Your task to perform on an android device: change the clock style Image 0: 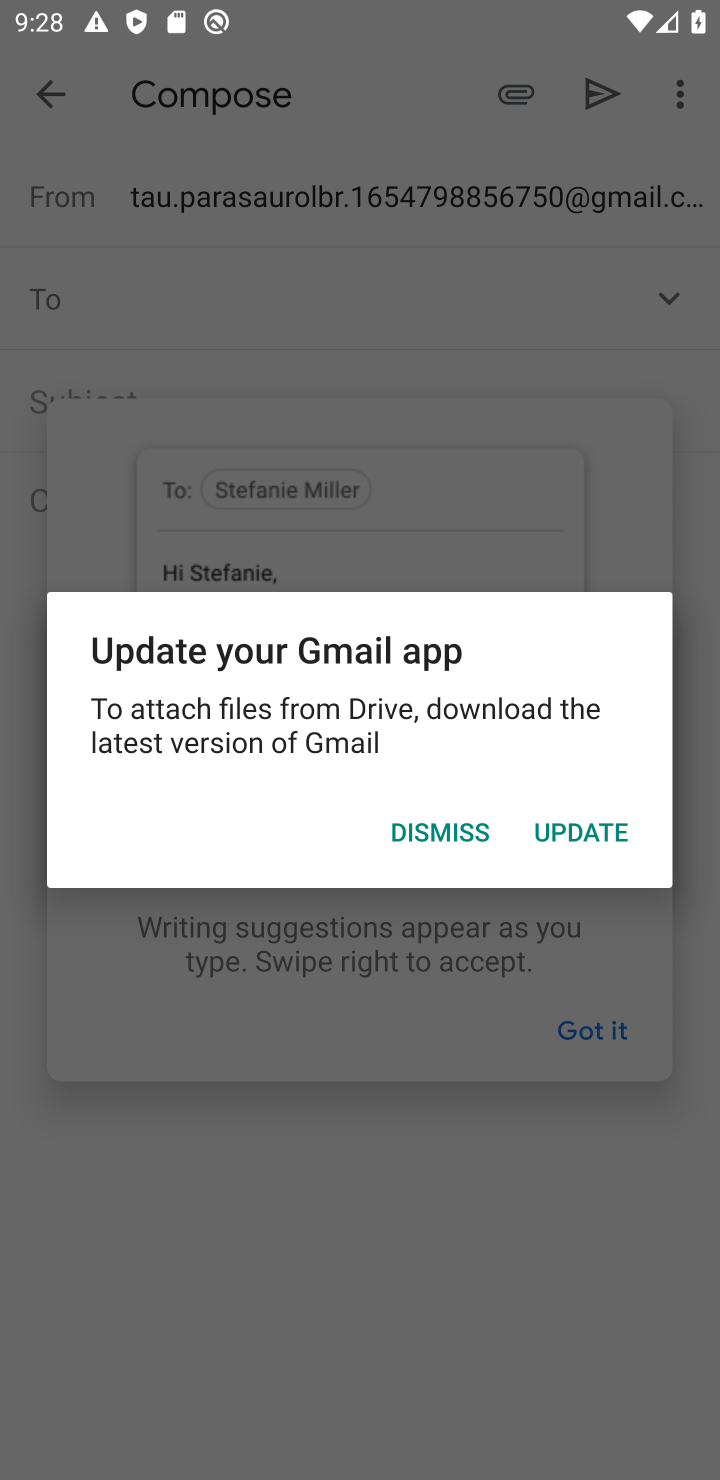
Step 0: press home button
Your task to perform on an android device: change the clock style Image 1: 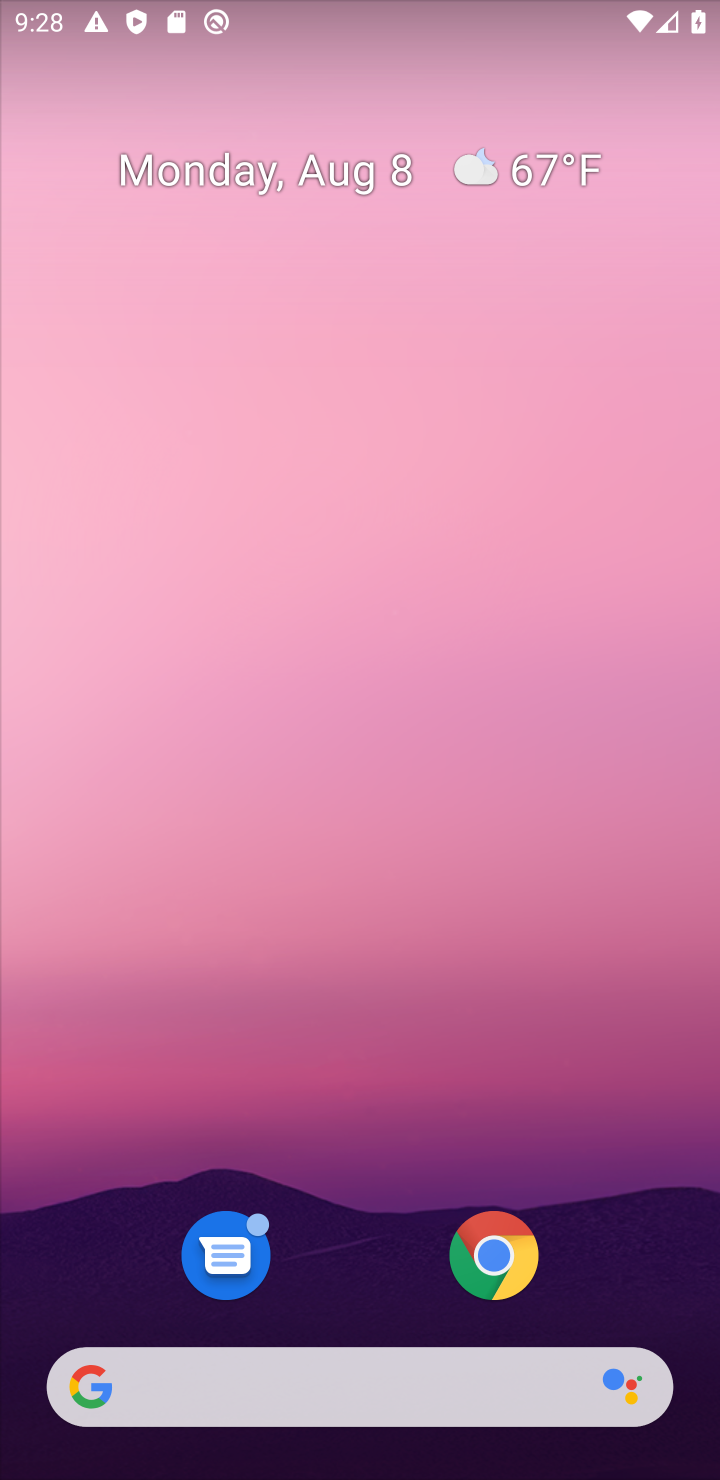
Step 1: drag from (333, 1162) to (359, 139)
Your task to perform on an android device: change the clock style Image 2: 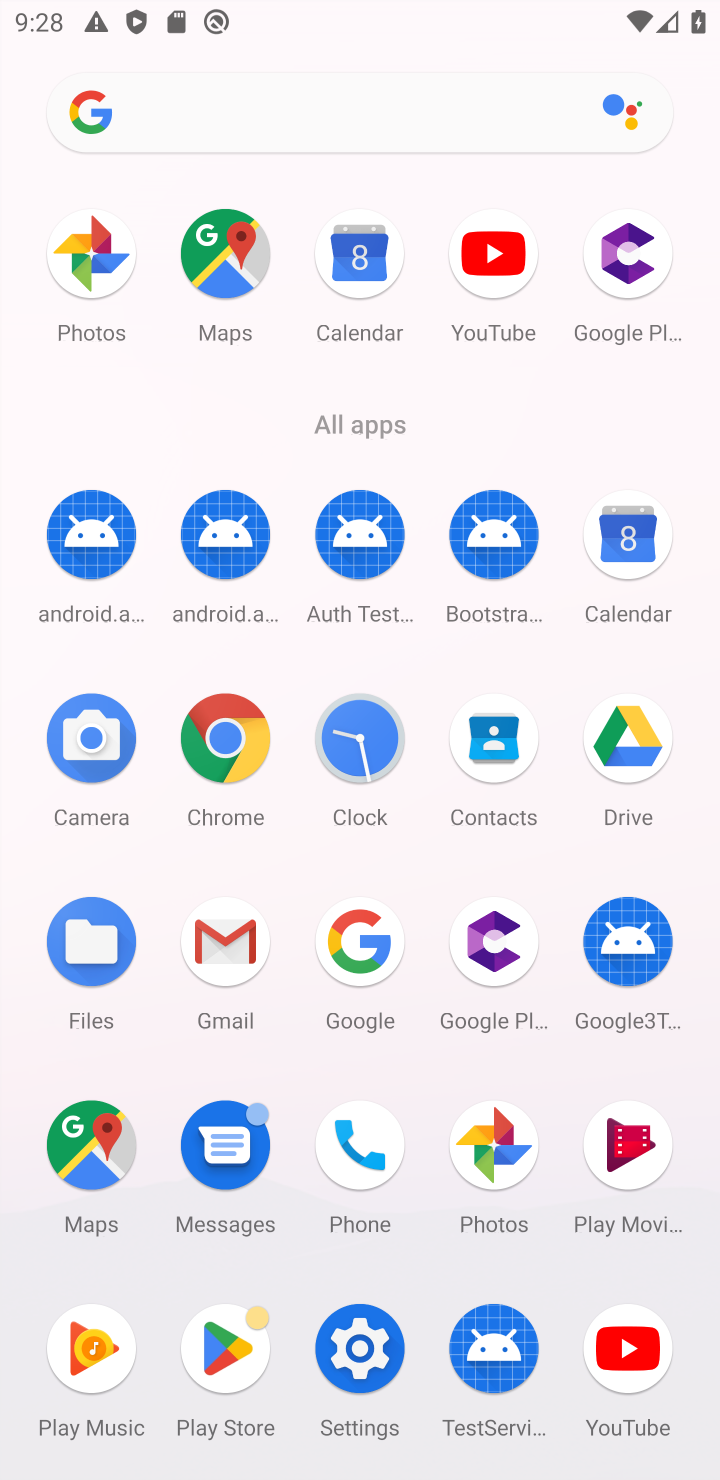
Step 2: click (387, 746)
Your task to perform on an android device: change the clock style Image 3: 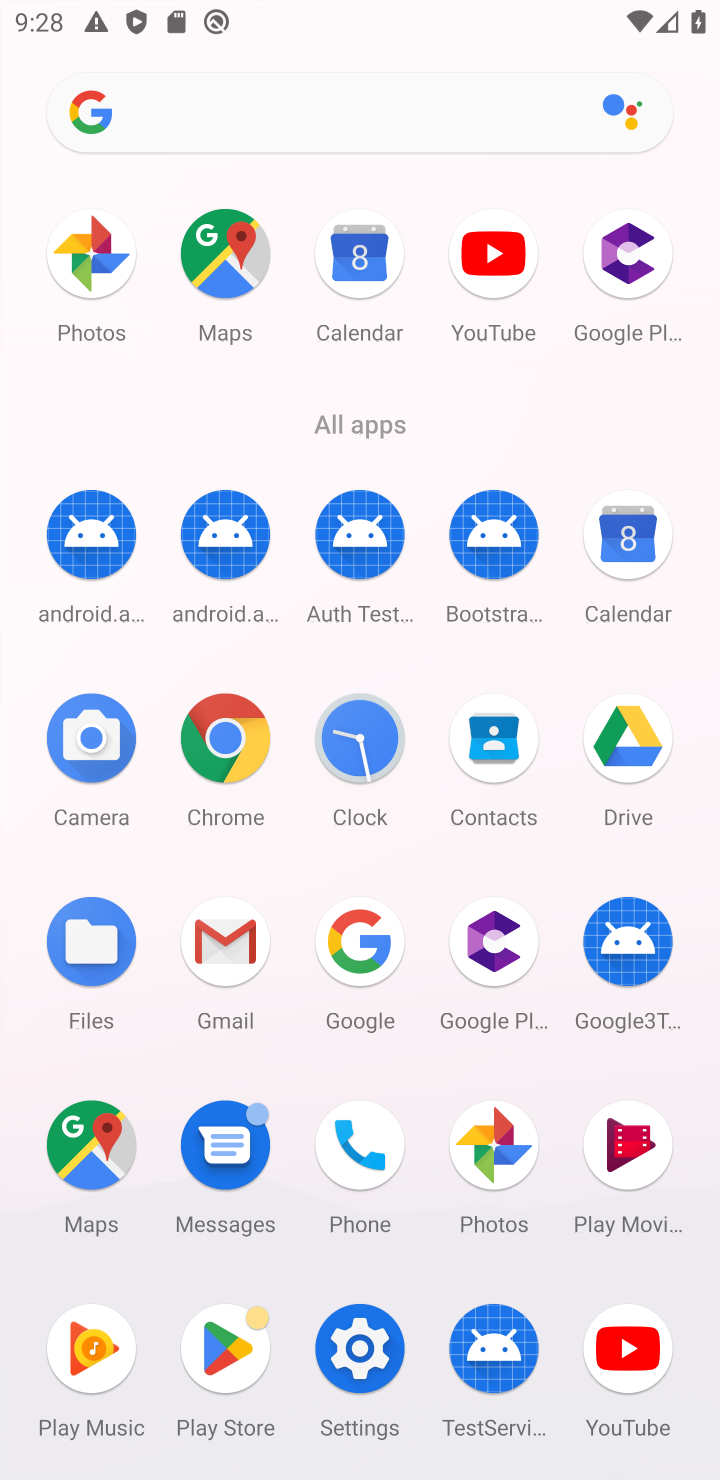
Step 3: click (387, 746)
Your task to perform on an android device: change the clock style Image 4: 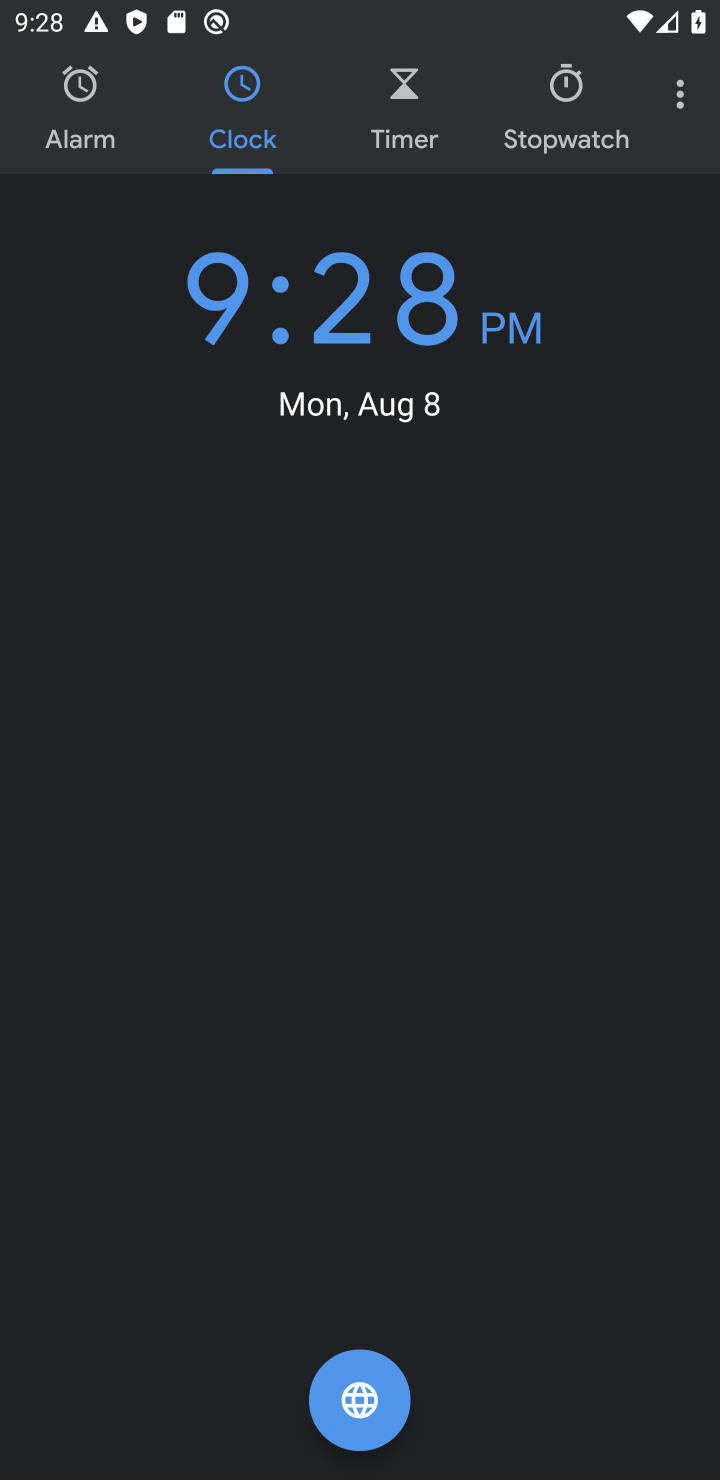
Step 4: click (684, 93)
Your task to perform on an android device: change the clock style Image 5: 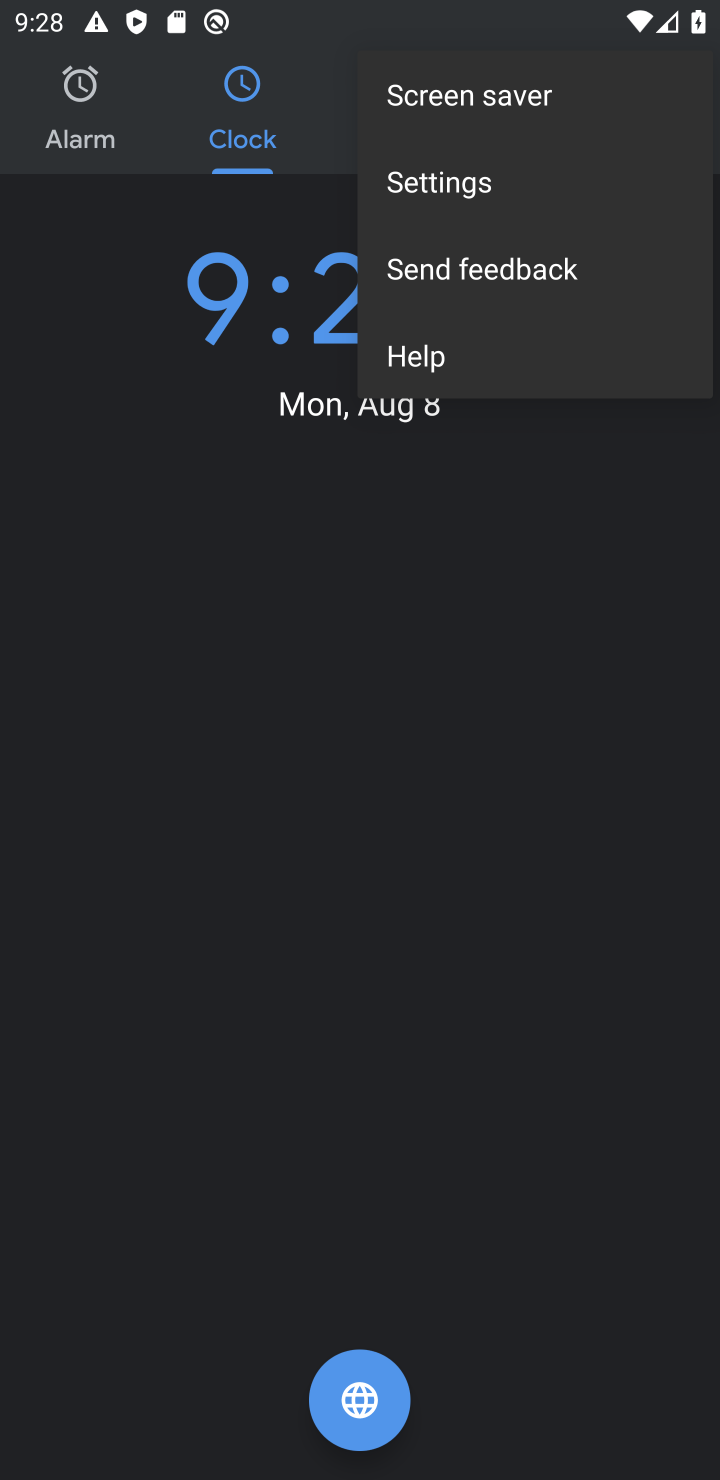
Step 5: click (470, 185)
Your task to perform on an android device: change the clock style Image 6: 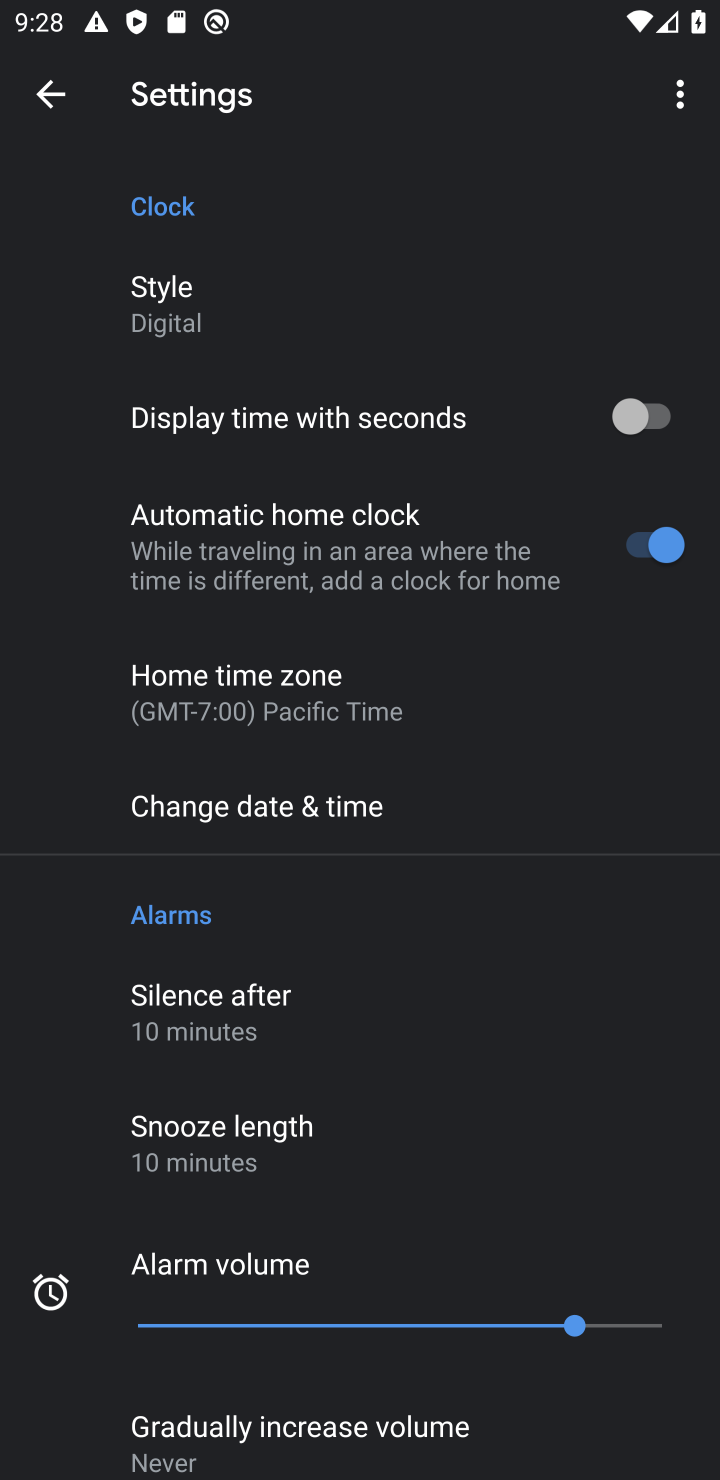
Step 6: click (200, 315)
Your task to perform on an android device: change the clock style Image 7: 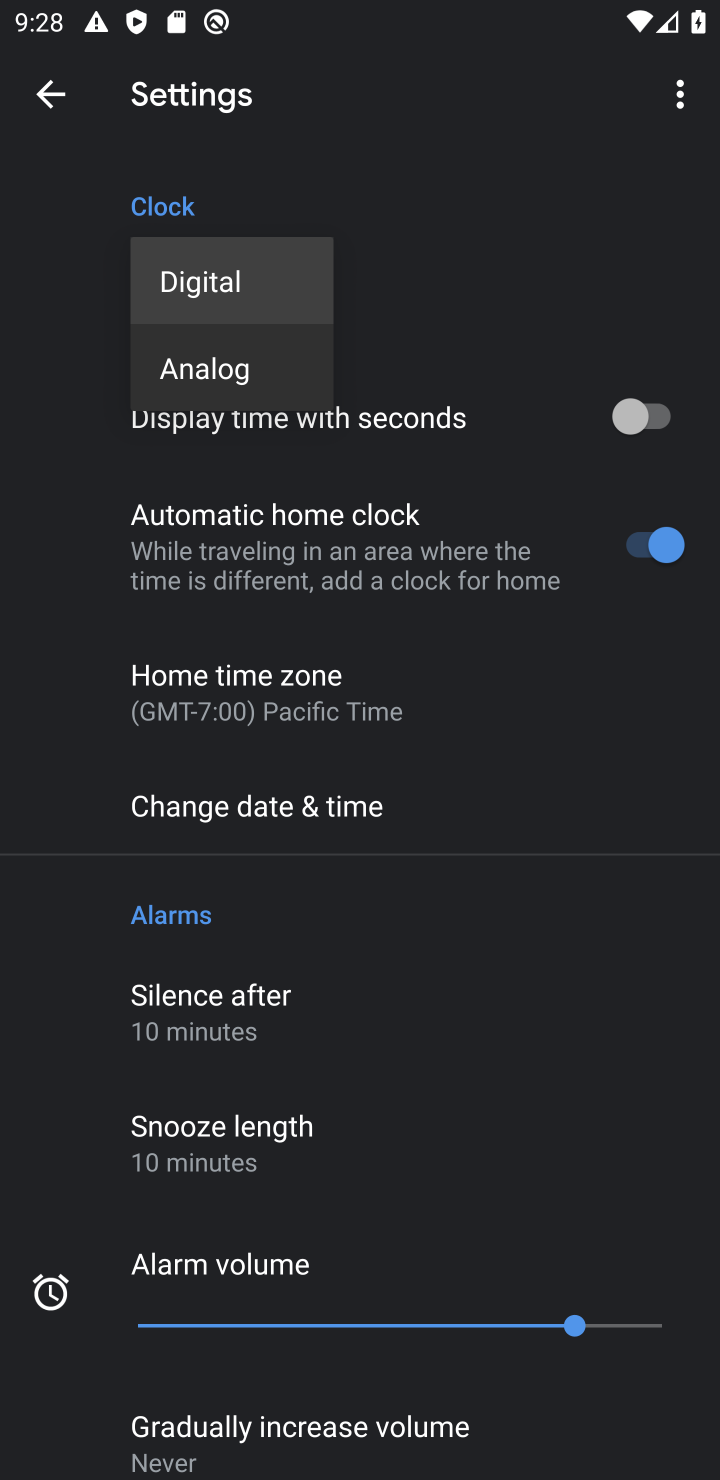
Step 7: click (242, 382)
Your task to perform on an android device: change the clock style Image 8: 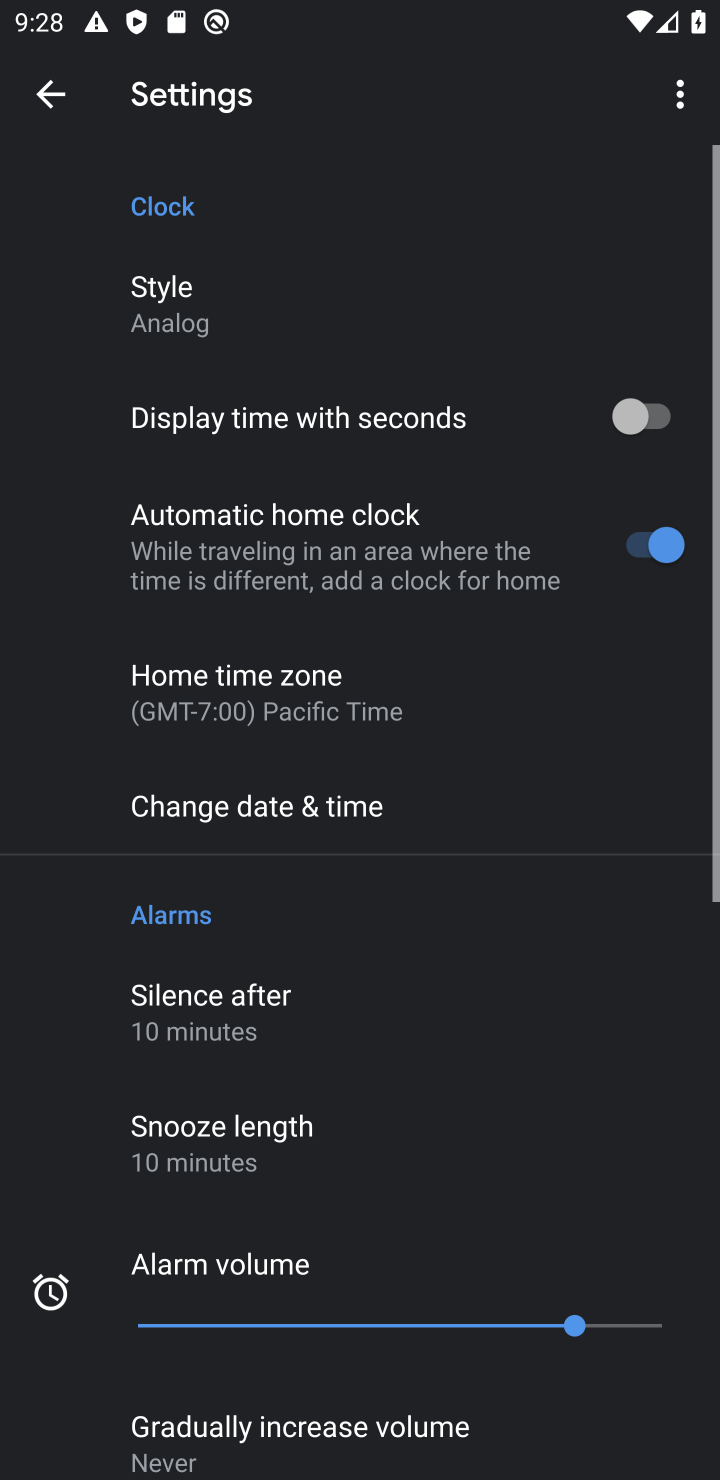
Step 8: task complete